Your task to perform on an android device: empty trash in google photos Image 0: 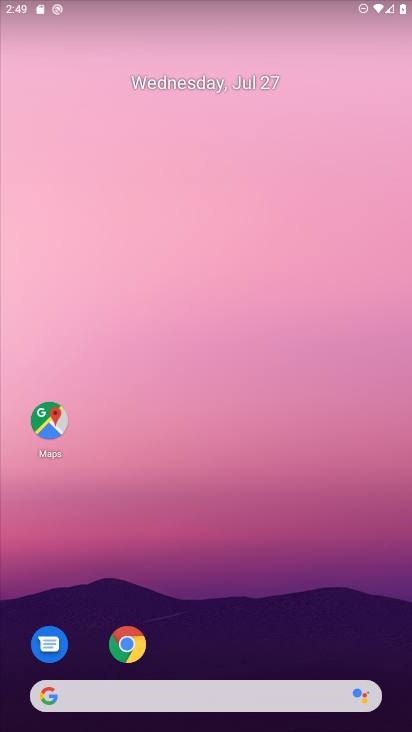
Step 0: drag from (233, 649) to (228, 24)
Your task to perform on an android device: empty trash in google photos Image 1: 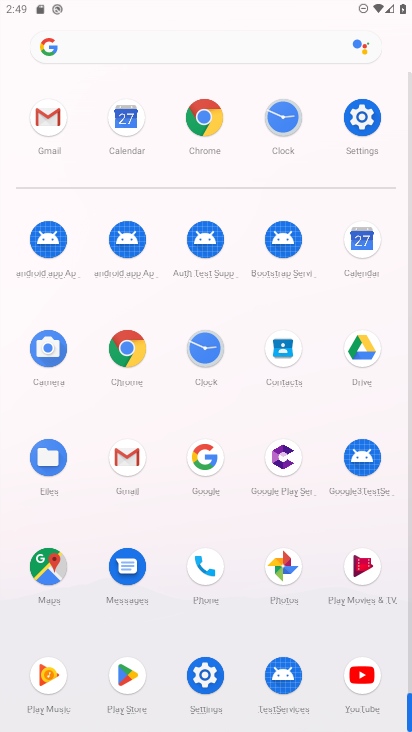
Step 1: click (282, 574)
Your task to perform on an android device: empty trash in google photos Image 2: 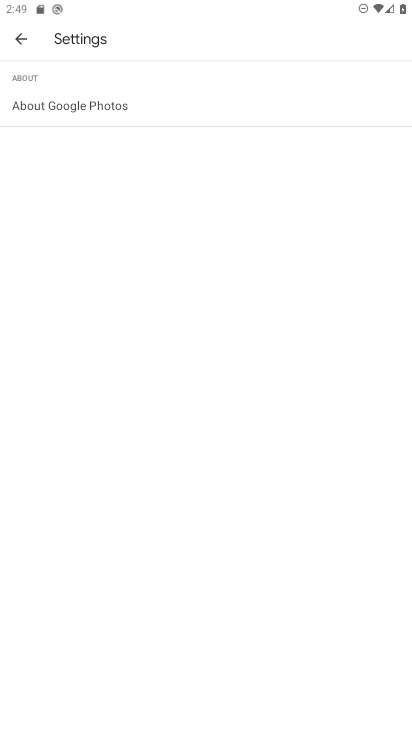
Step 2: click (25, 41)
Your task to perform on an android device: empty trash in google photos Image 3: 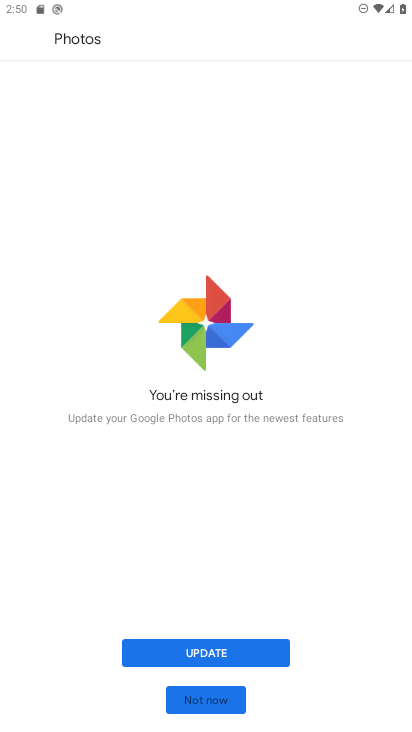
Step 3: click (210, 708)
Your task to perform on an android device: empty trash in google photos Image 4: 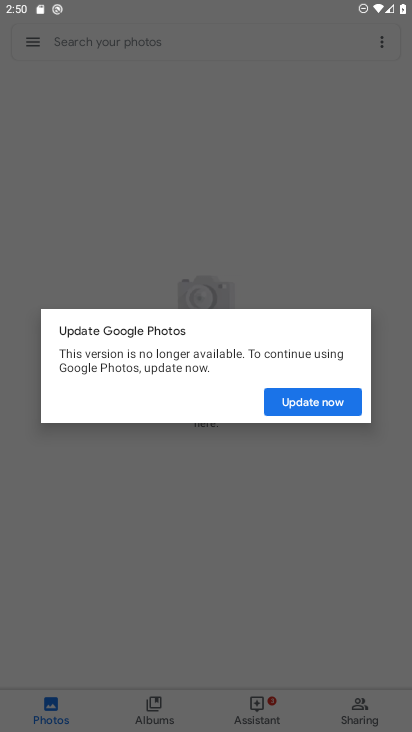
Step 4: click (323, 394)
Your task to perform on an android device: empty trash in google photos Image 5: 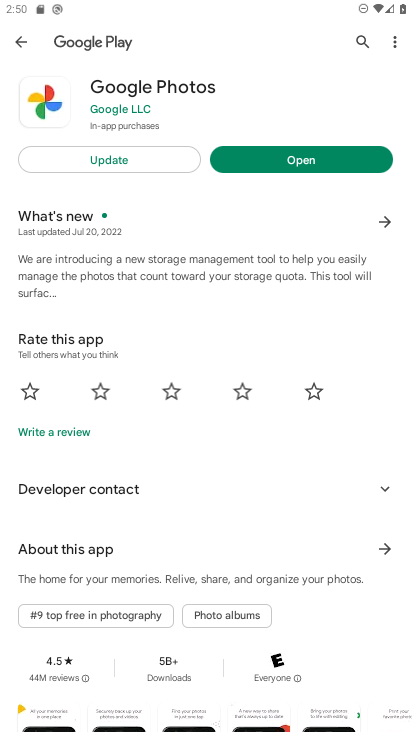
Step 5: click (320, 156)
Your task to perform on an android device: empty trash in google photos Image 6: 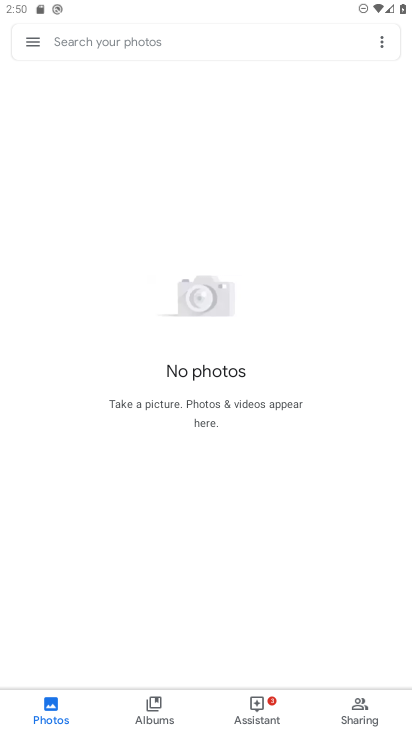
Step 6: click (40, 38)
Your task to perform on an android device: empty trash in google photos Image 7: 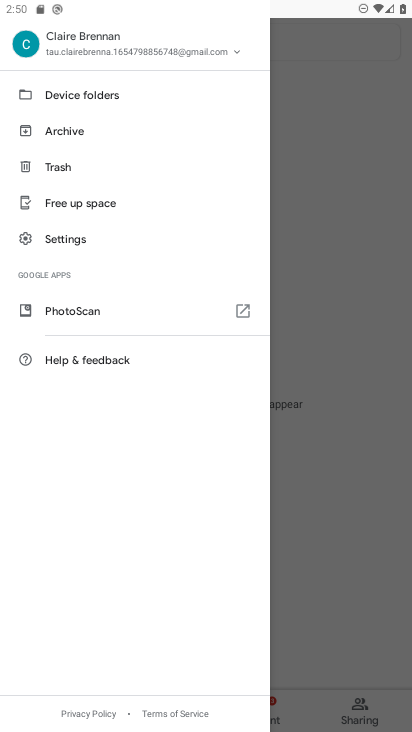
Step 7: click (65, 163)
Your task to perform on an android device: empty trash in google photos Image 8: 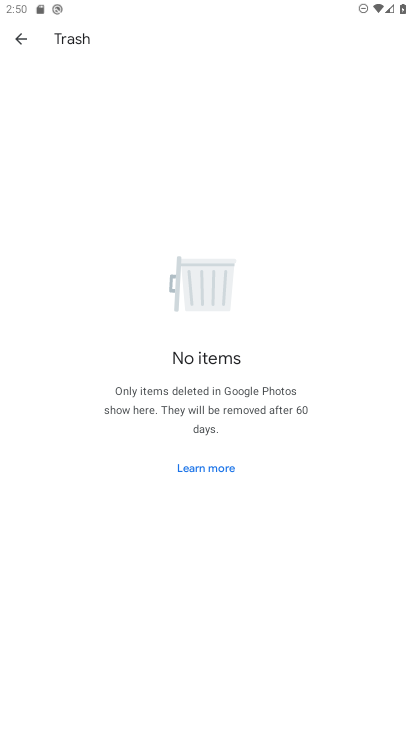
Step 8: task complete